Your task to perform on an android device: move an email to a new category in the gmail app Image 0: 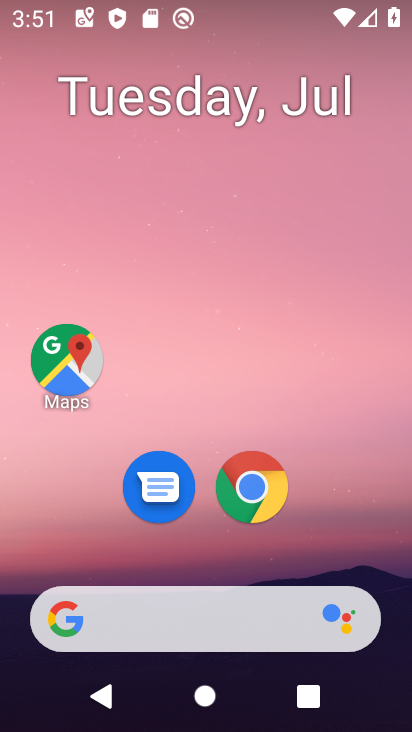
Step 0: drag from (197, 509) to (258, 18)
Your task to perform on an android device: move an email to a new category in the gmail app Image 1: 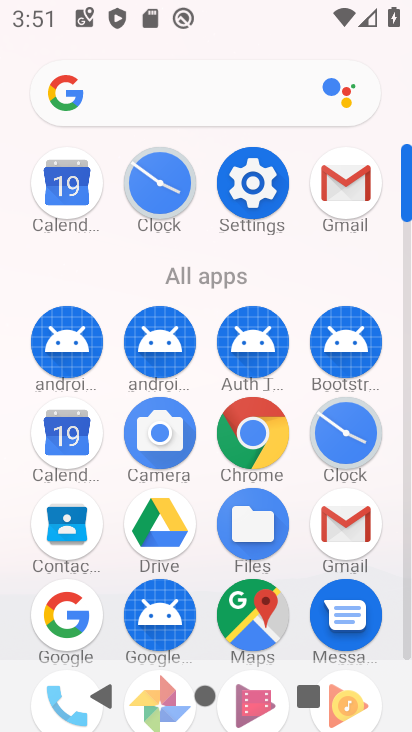
Step 1: click (359, 171)
Your task to perform on an android device: move an email to a new category in the gmail app Image 2: 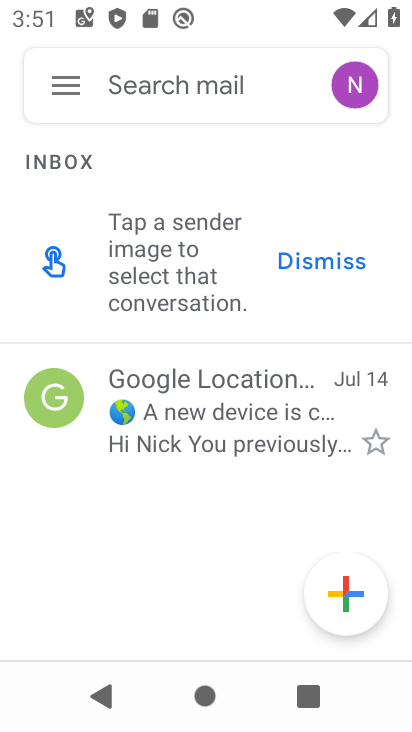
Step 2: click (200, 403)
Your task to perform on an android device: move an email to a new category in the gmail app Image 3: 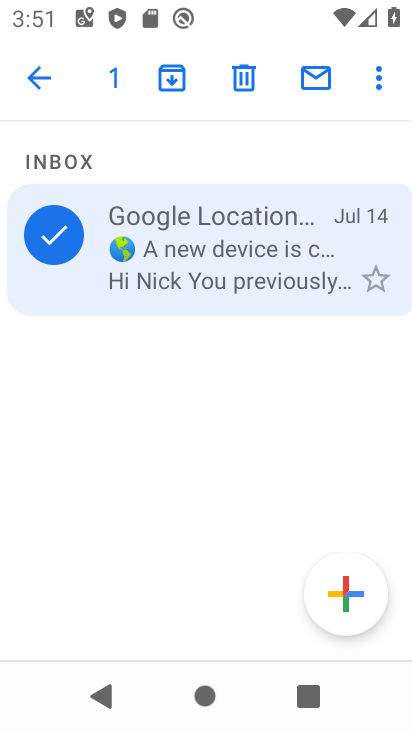
Step 3: click (380, 71)
Your task to perform on an android device: move an email to a new category in the gmail app Image 4: 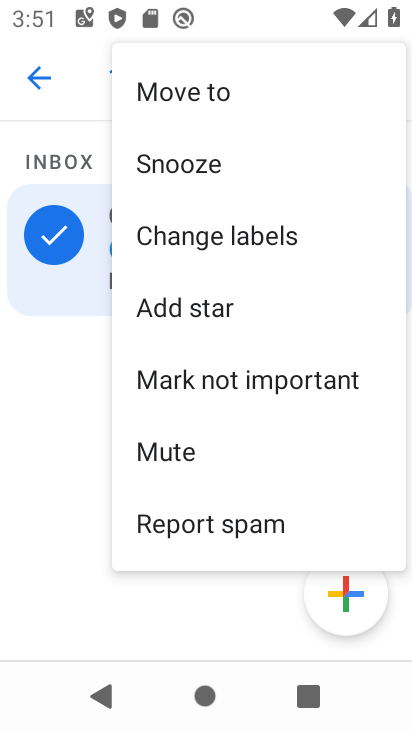
Step 4: click (202, 99)
Your task to perform on an android device: move an email to a new category in the gmail app Image 5: 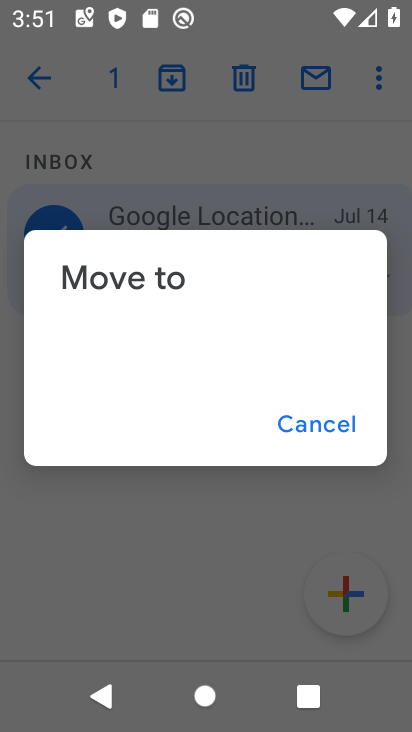
Step 5: click (145, 364)
Your task to perform on an android device: move an email to a new category in the gmail app Image 6: 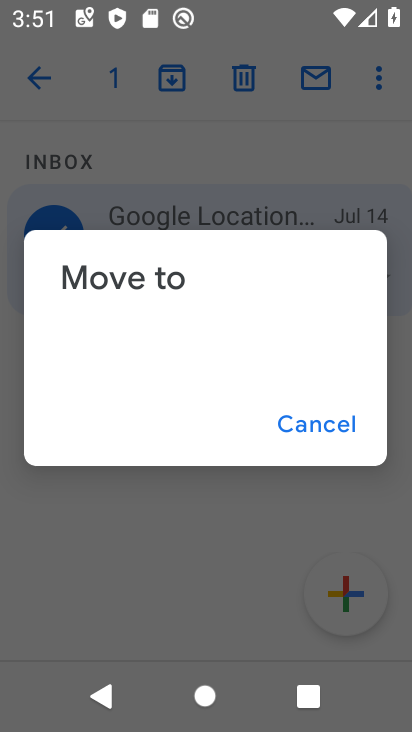
Step 6: click (296, 435)
Your task to perform on an android device: move an email to a new category in the gmail app Image 7: 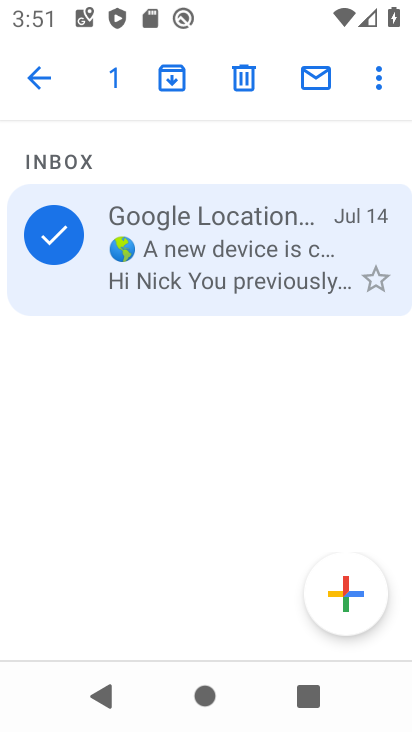
Step 7: task complete